Your task to perform on an android device: remove spam from my inbox in the gmail app Image 0: 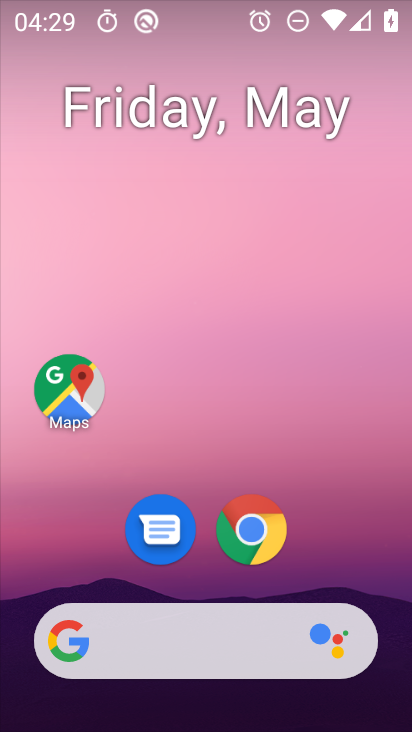
Step 0: drag from (398, 671) to (411, 614)
Your task to perform on an android device: remove spam from my inbox in the gmail app Image 1: 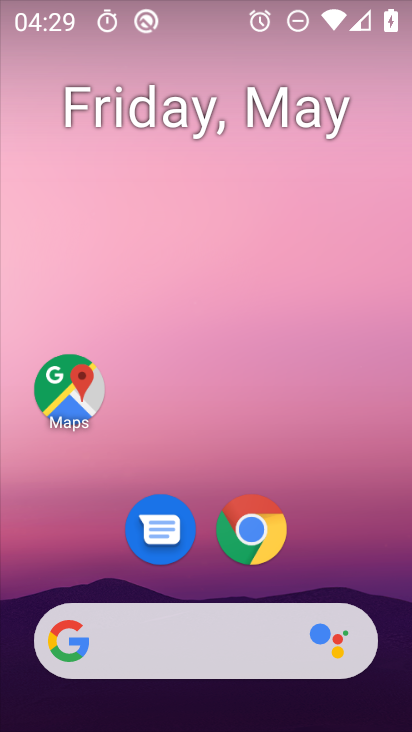
Step 1: drag from (392, 699) to (358, 272)
Your task to perform on an android device: remove spam from my inbox in the gmail app Image 2: 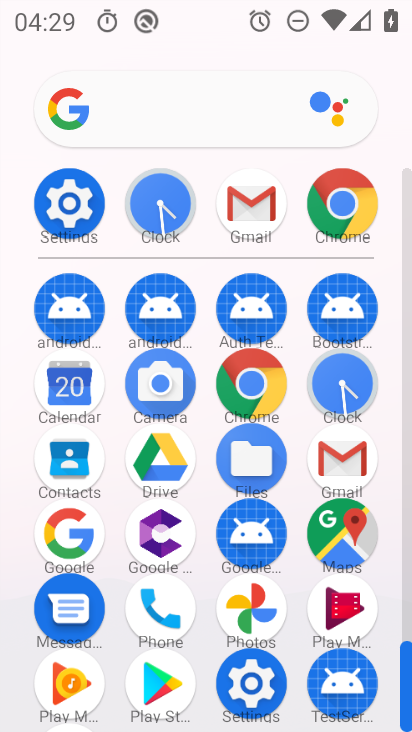
Step 2: click (322, 457)
Your task to perform on an android device: remove spam from my inbox in the gmail app Image 3: 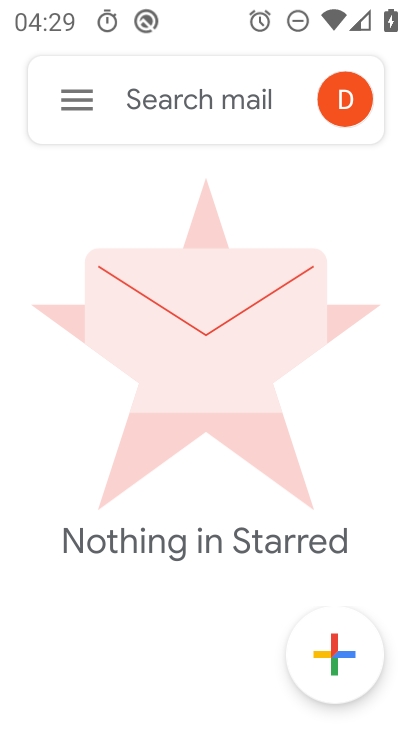
Step 3: click (84, 99)
Your task to perform on an android device: remove spam from my inbox in the gmail app Image 4: 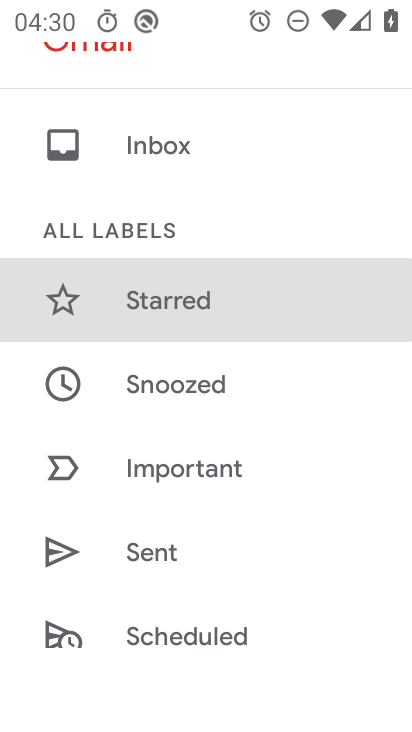
Step 4: drag from (288, 626) to (305, 341)
Your task to perform on an android device: remove spam from my inbox in the gmail app Image 5: 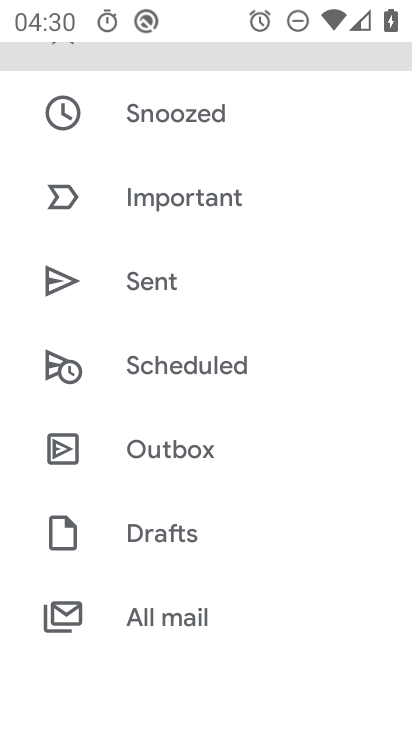
Step 5: drag from (285, 580) to (280, 359)
Your task to perform on an android device: remove spam from my inbox in the gmail app Image 6: 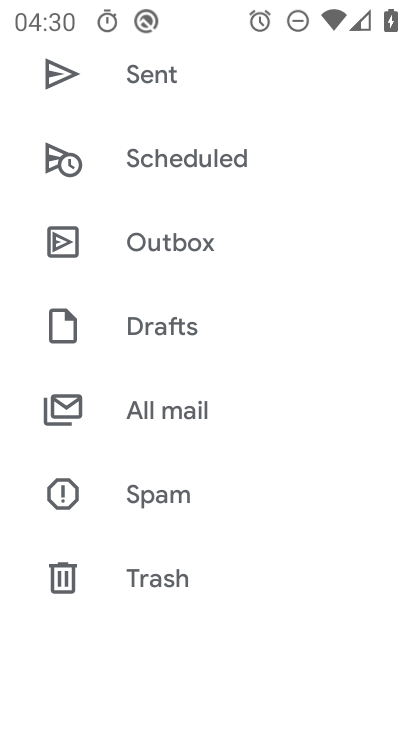
Step 6: click (61, 495)
Your task to perform on an android device: remove spam from my inbox in the gmail app Image 7: 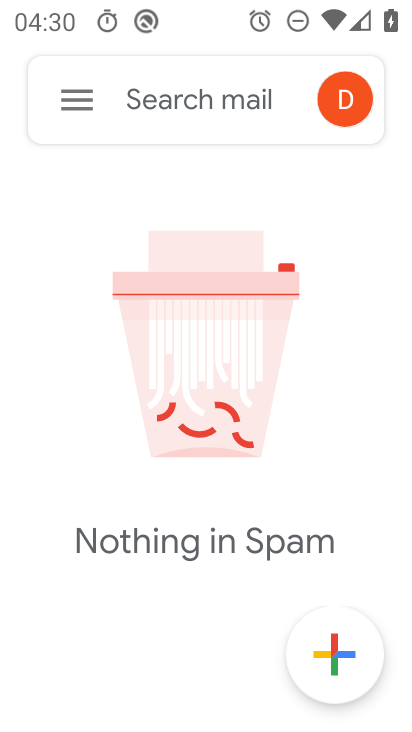
Step 7: task complete